Your task to perform on an android device: Open Amazon Image 0: 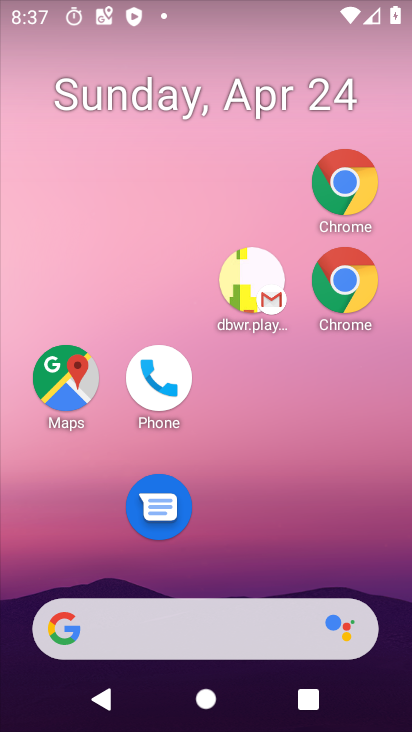
Step 0: drag from (230, 590) to (130, 39)
Your task to perform on an android device: Open Amazon Image 1: 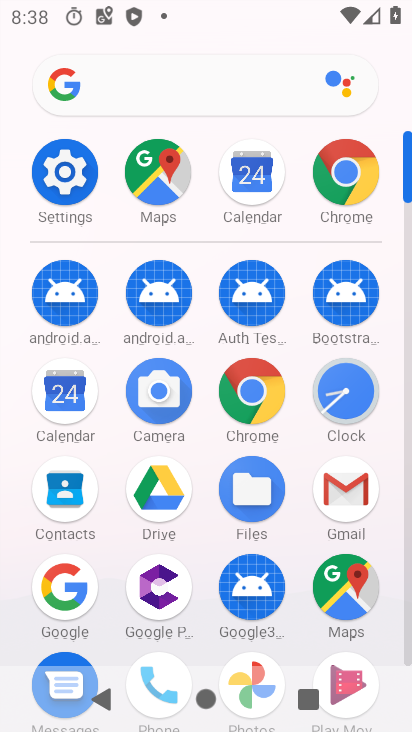
Step 1: click (343, 164)
Your task to perform on an android device: Open Amazon Image 2: 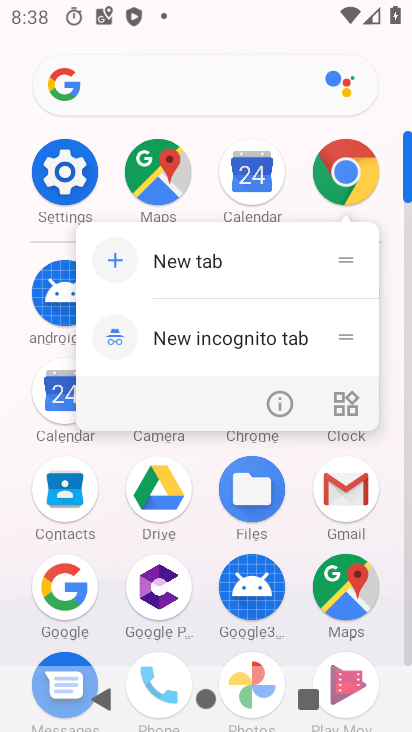
Step 2: click (344, 163)
Your task to perform on an android device: Open Amazon Image 3: 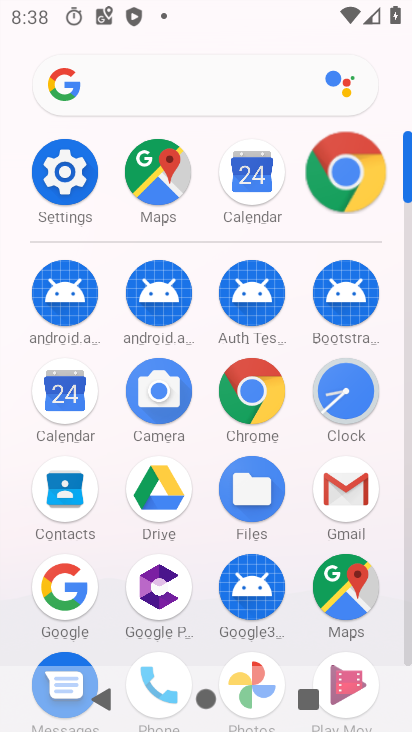
Step 3: click (341, 162)
Your task to perform on an android device: Open Amazon Image 4: 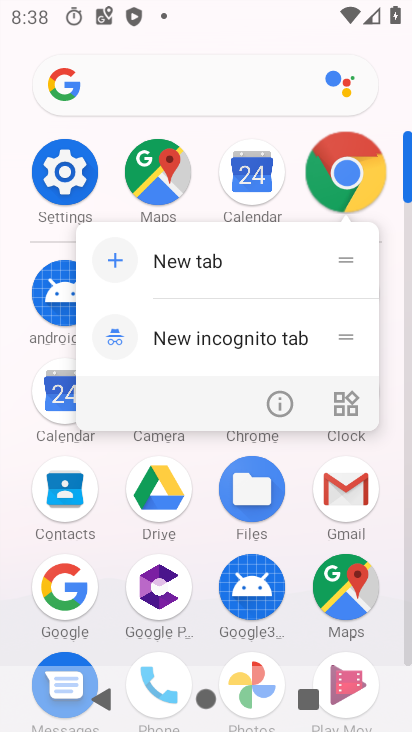
Step 4: click (342, 165)
Your task to perform on an android device: Open Amazon Image 5: 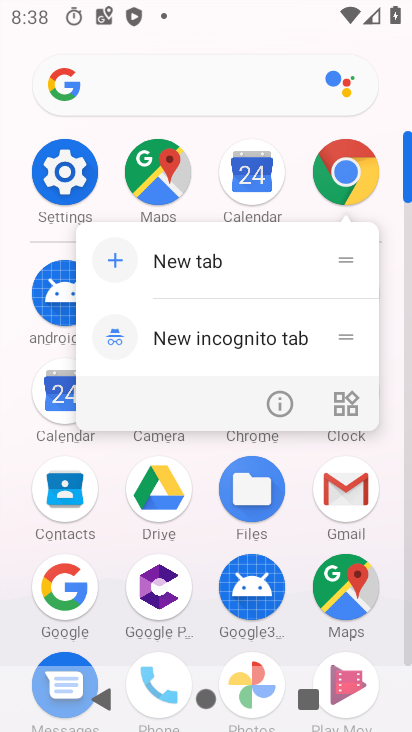
Step 5: task complete